Your task to perform on an android device: set the stopwatch Image 0: 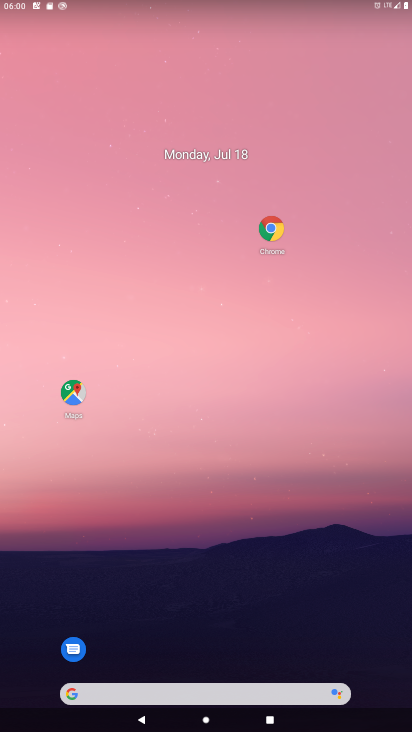
Step 0: drag from (215, 628) to (204, 25)
Your task to perform on an android device: set the stopwatch Image 1: 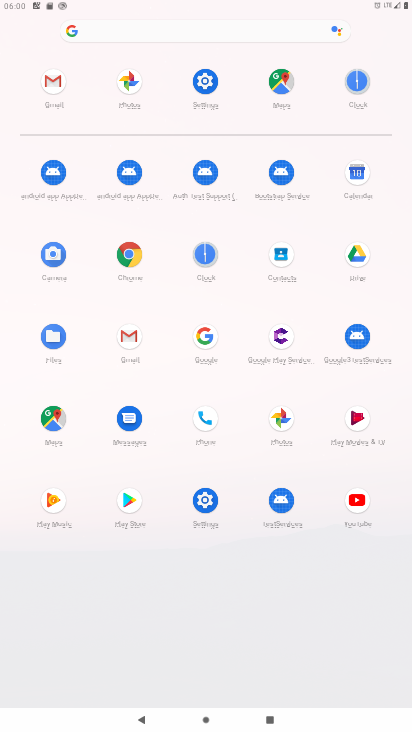
Step 1: click (355, 90)
Your task to perform on an android device: set the stopwatch Image 2: 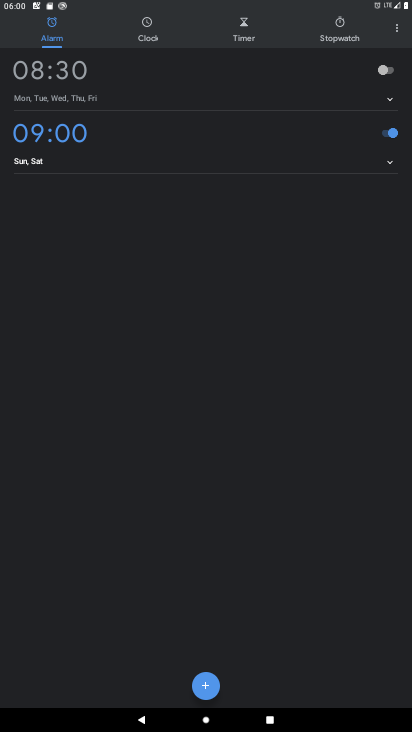
Step 2: click (350, 36)
Your task to perform on an android device: set the stopwatch Image 3: 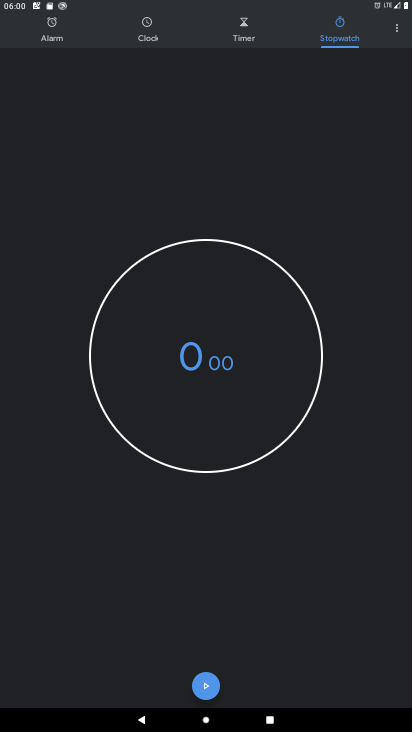
Step 3: task complete